Your task to perform on an android device: Go to eBay Image 0: 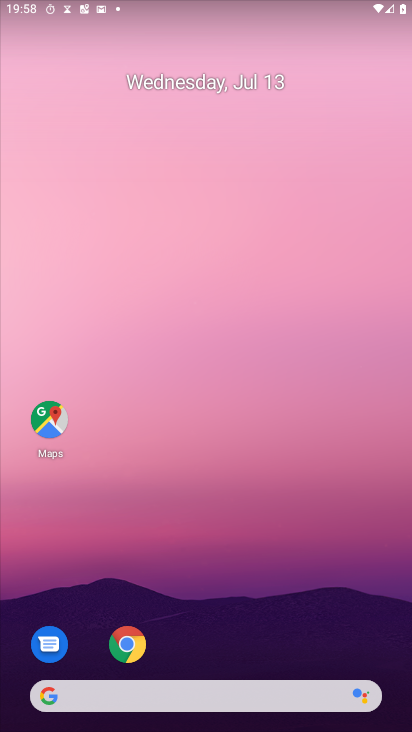
Step 0: click (136, 643)
Your task to perform on an android device: Go to eBay Image 1: 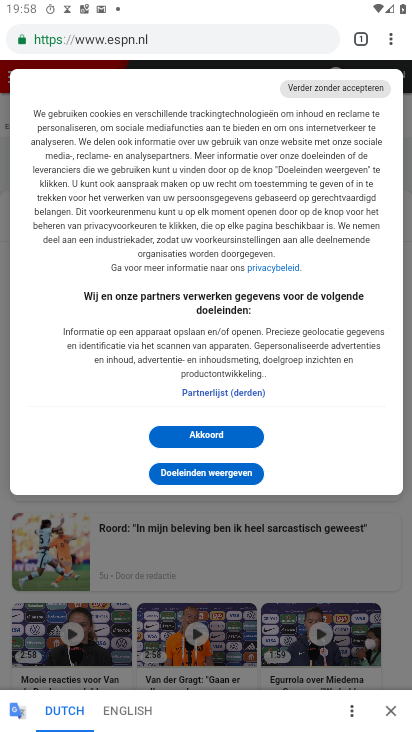
Step 1: click (121, 41)
Your task to perform on an android device: Go to eBay Image 2: 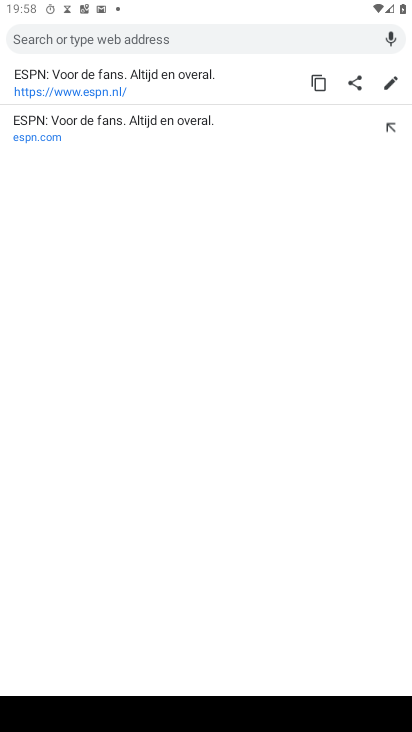
Step 2: type "ebay"
Your task to perform on an android device: Go to eBay Image 3: 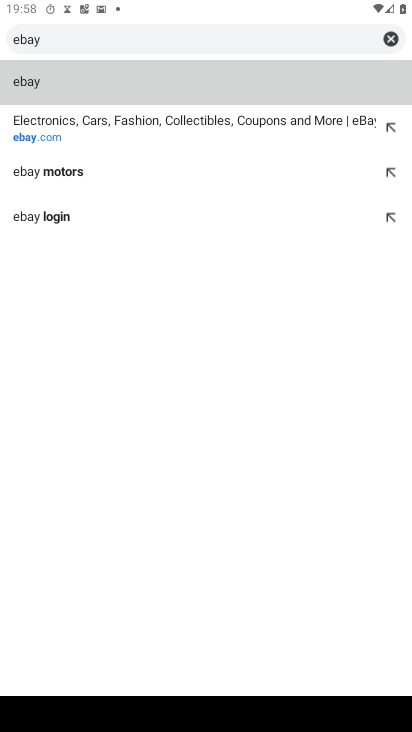
Step 3: click (269, 82)
Your task to perform on an android device: Go to eBay Image 4: 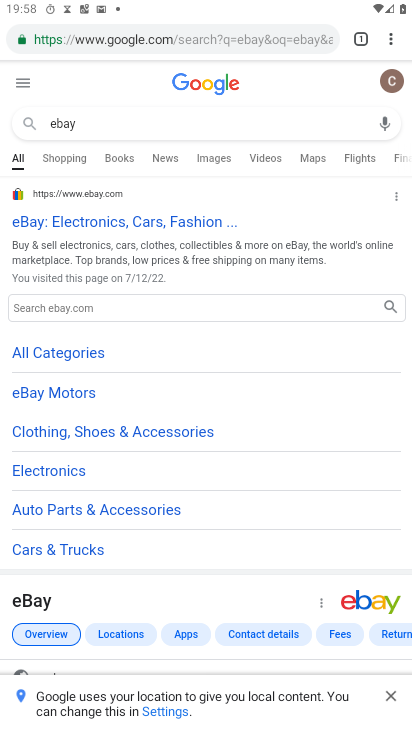
Step 4: click (98, 221)
Your task to perform on an android device: Go to eBay Image 5: 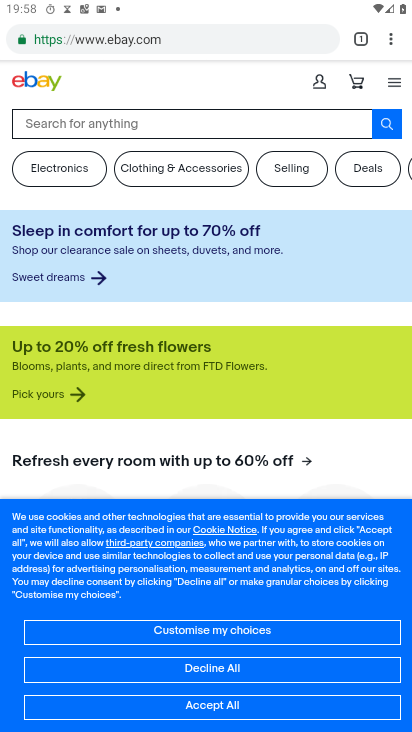
Step 5: task complete